Your task to perform on an android device: manage bookmarks in the chrome app Image 0: 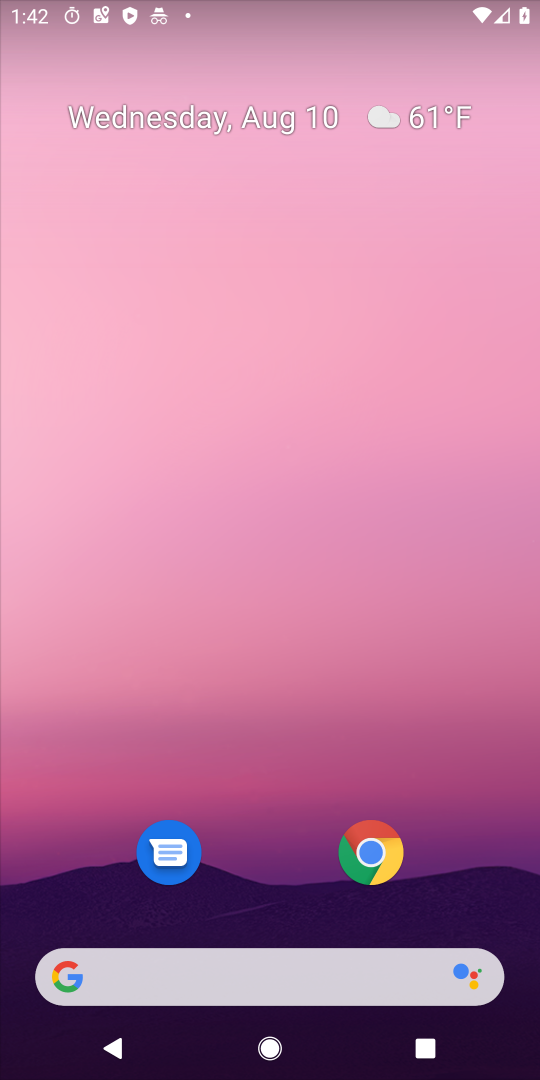
Step 0: drag from (266, 751) to (306, 193)
Your task to perform on an android device: manage bookmarks in the chrome app Image 1: 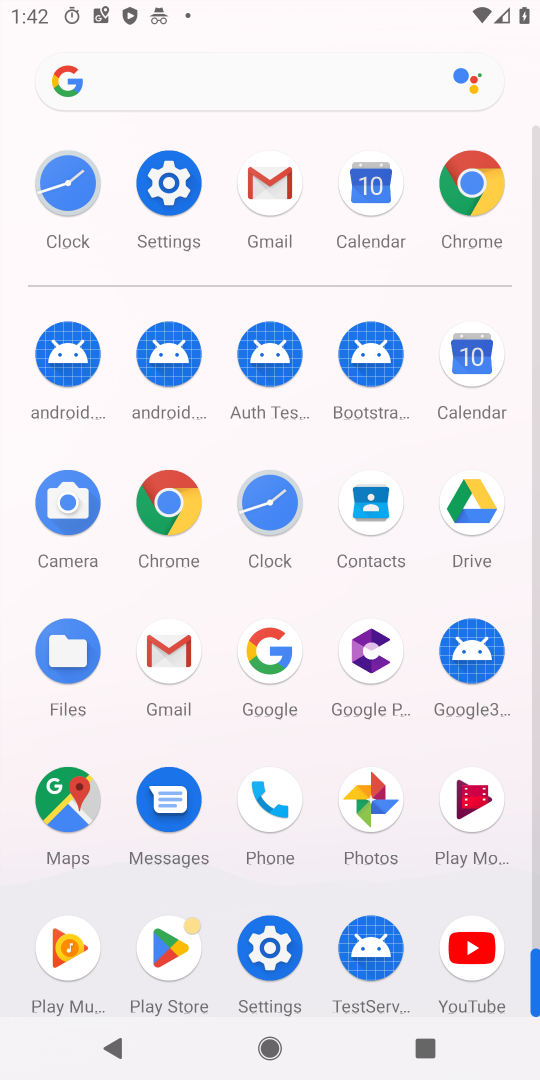
Step 1: click (175, 499)
Your task to perform on an android device: manage bookmarks in the chrome app Image 2: 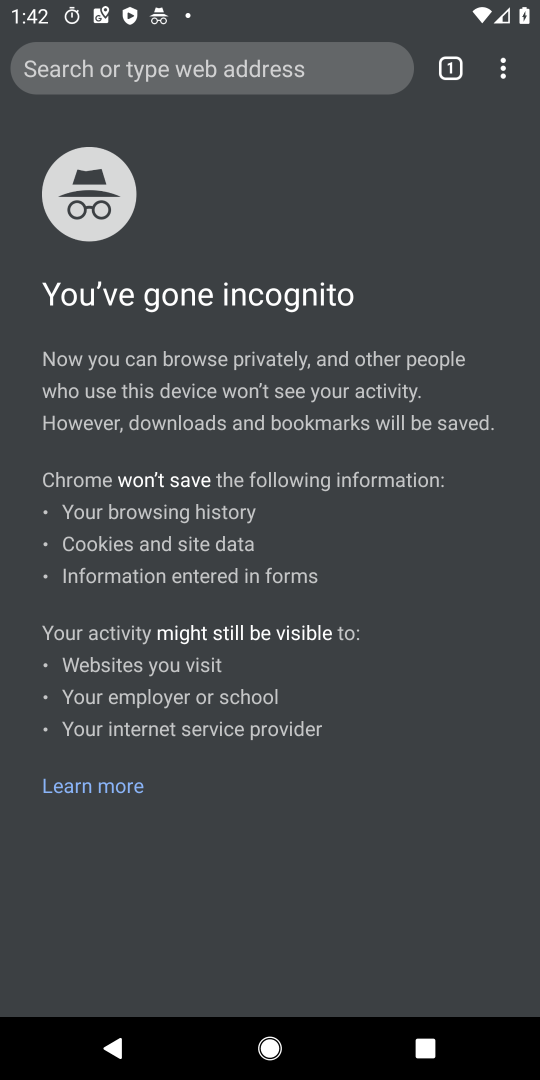
Step 2: drag from (512, 70) to (266, 260)
Your task to perform on an android device: manage bookmarks in the chrome app Image 3: 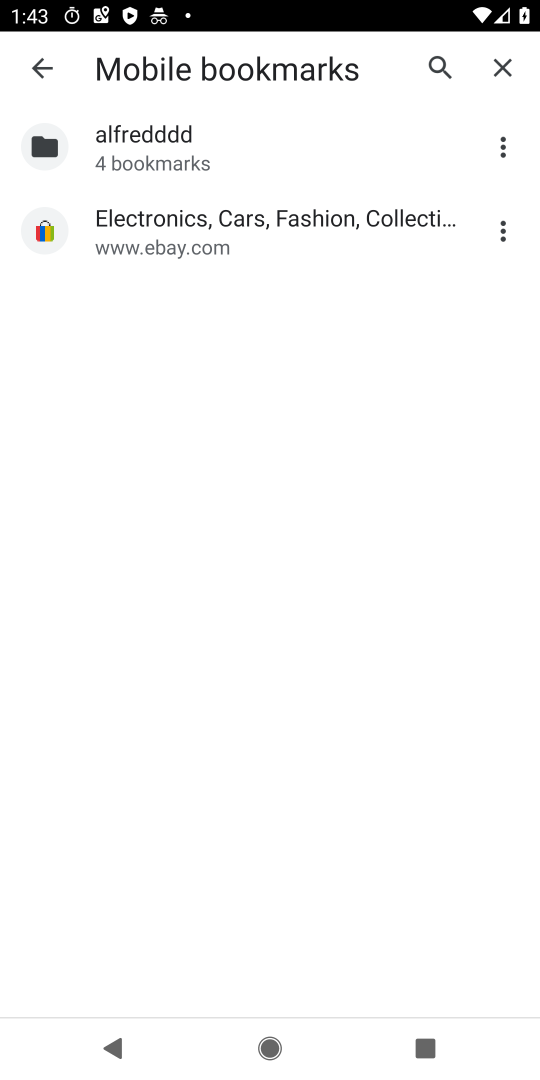
Step 3: click (496, 224)
Your task to perform on an android device: manage bookmarks in the chrome app Image 4: 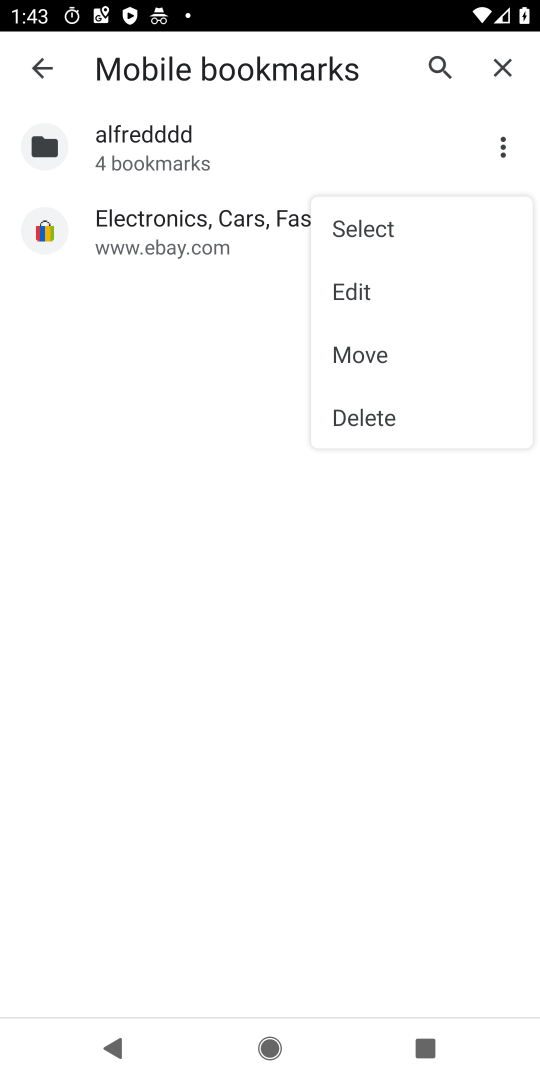
Step 4: click (344, 300)
Your task to perform on an android device: manage bookmarks in the chrome app Image 5: 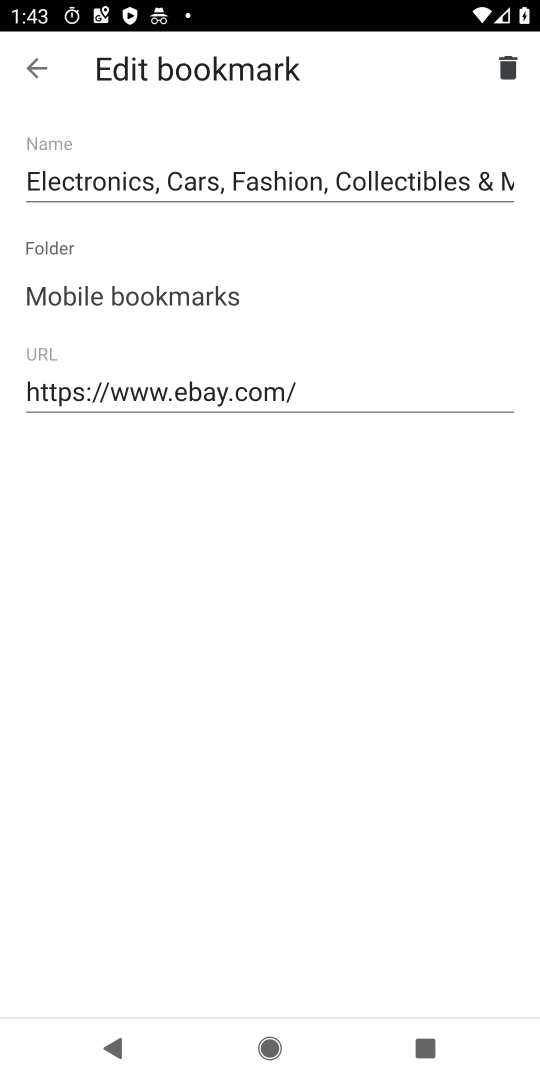
Step 5: click (164, 176)
Your task to perform on an android device: manage bookmarks in the chrome app Image 6: 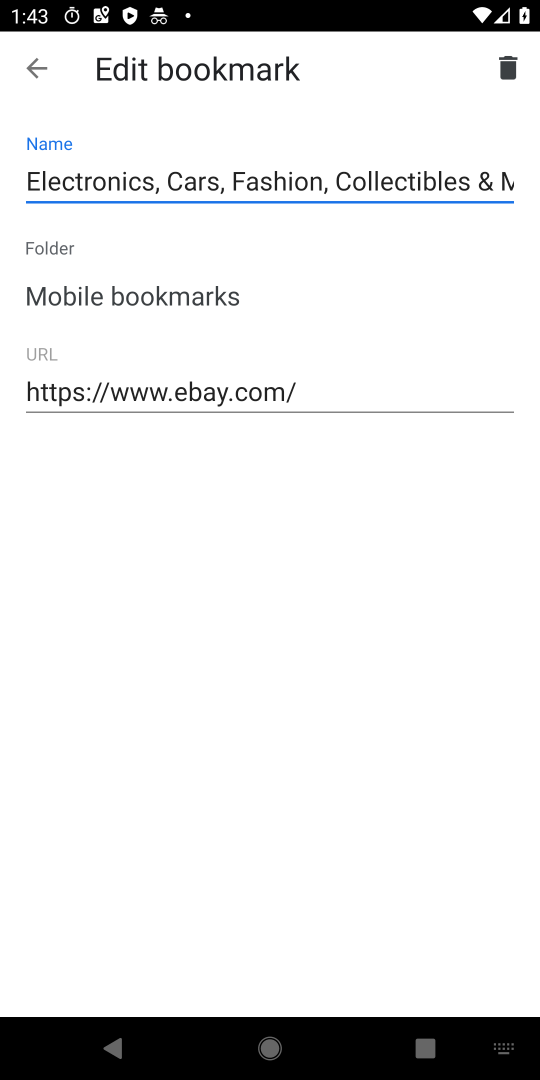
Step 6: type "hop"
Your task to perform on an android device: manage bookmarks in the chrome app Image 7: 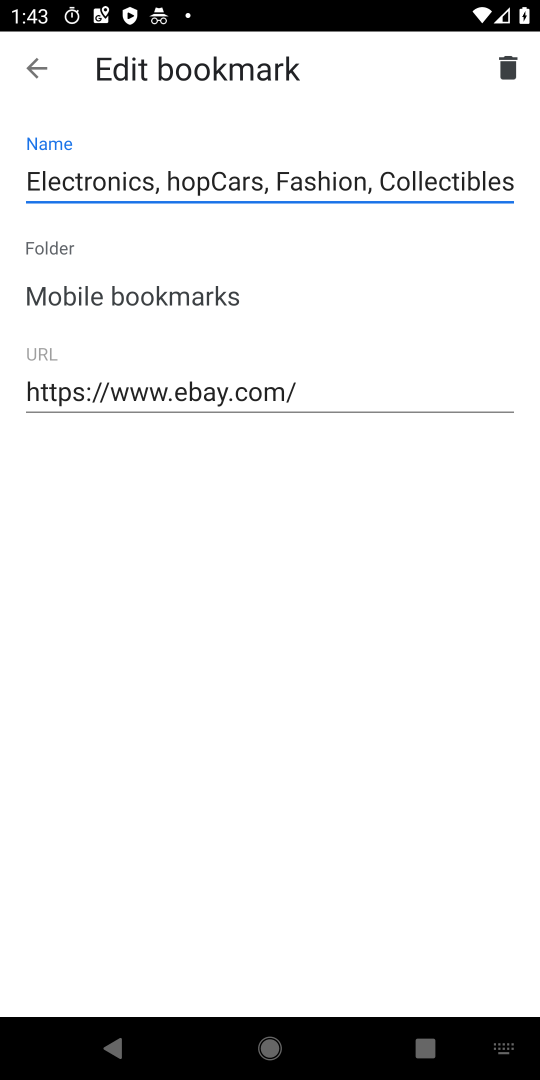
Step 7: click (33, 78)
Your task to perform on an android device: manage bookmarks in the chrome app Image 8: 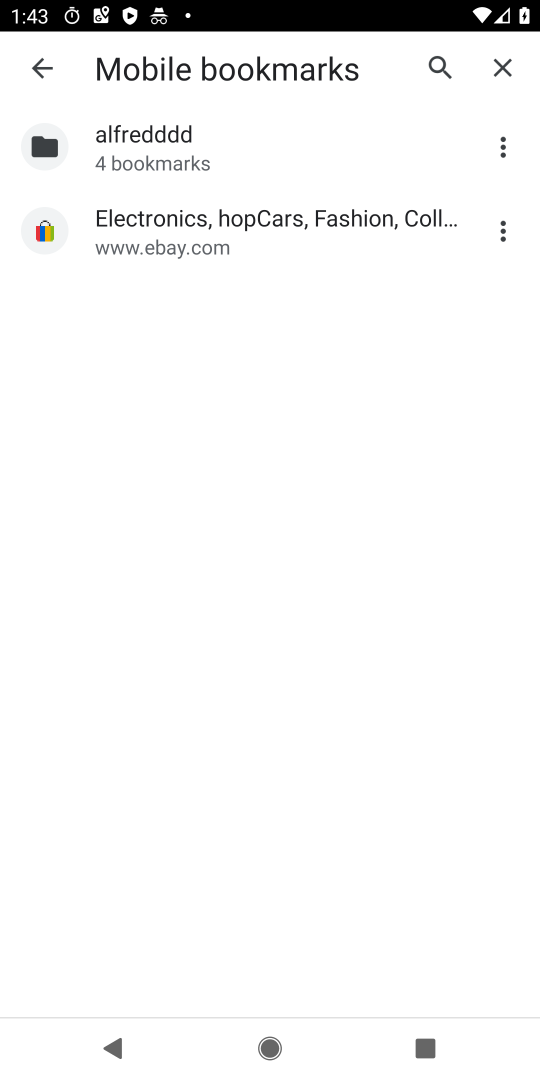
Step 8: task complete